Your task to perform on an android device: What is the news today? Image 0: 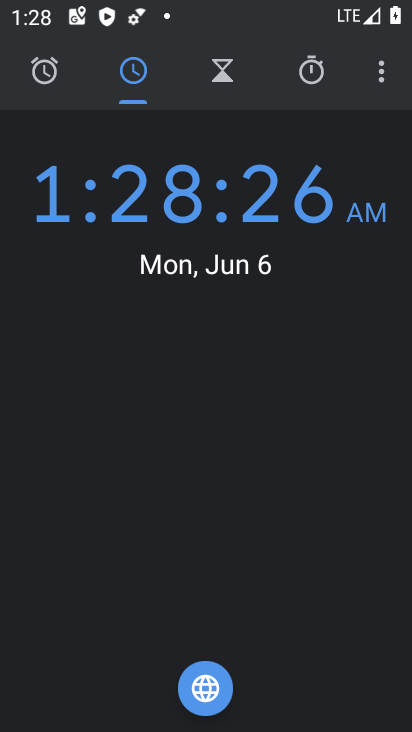
Step 0: press home button
Your task to perform on an android device: What is the news today? Image 1: 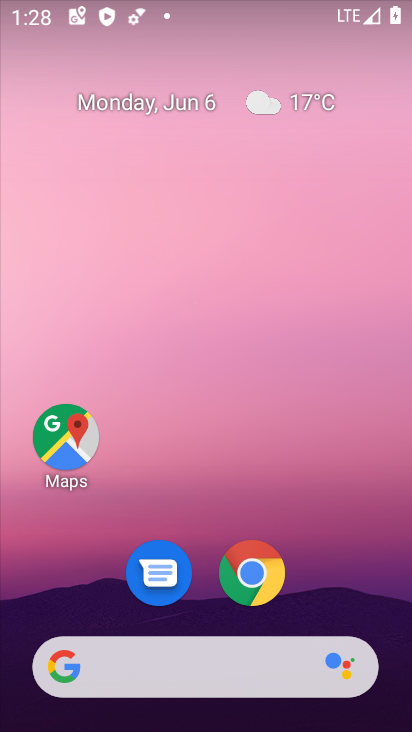
Step 1: task complete